Your task to perform on an android device: toggle improve location accuracy Image 0: 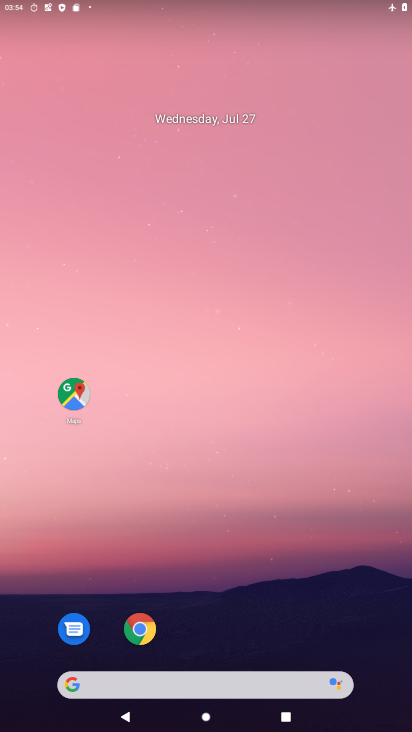
Step 0: drag from (242, 645) to (278, 18)
Your task to perform on an android device: toggle improve location accuracy Image 1: 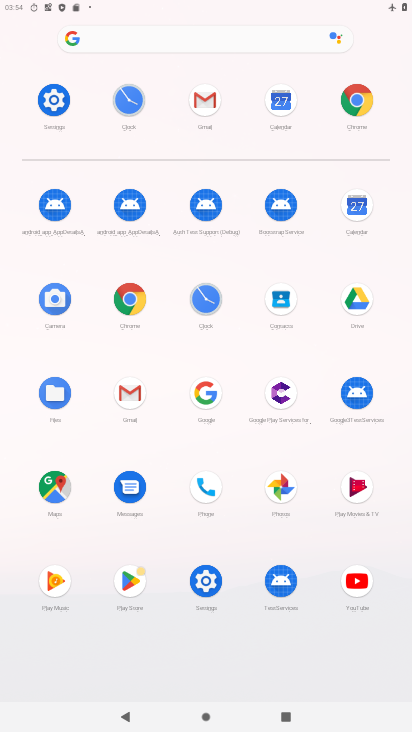
Step 1: click (50, 99)
Your task to perform on an android device: toggle improve location accuracy Image 2: 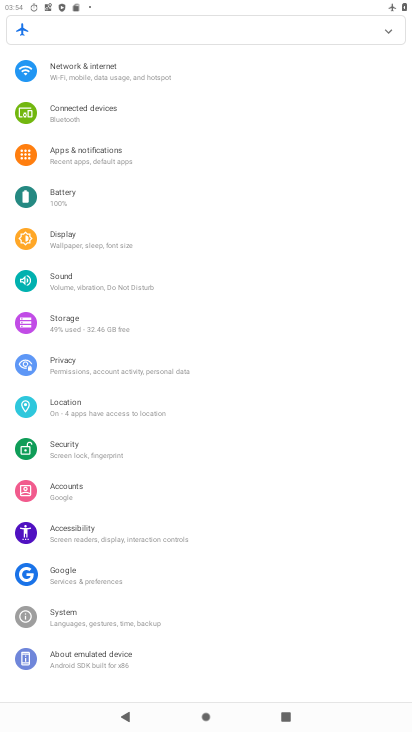
Step 2: click (106, 412)
Your task to perform on an android device: toggle improve location accuracy Image 3: 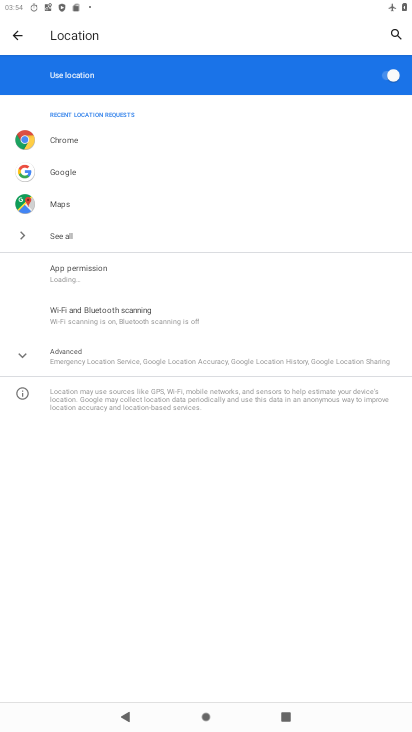
Step 3: click (65, 356)
Your task to perform on an android device: toggle improve location accuracy Image 4: 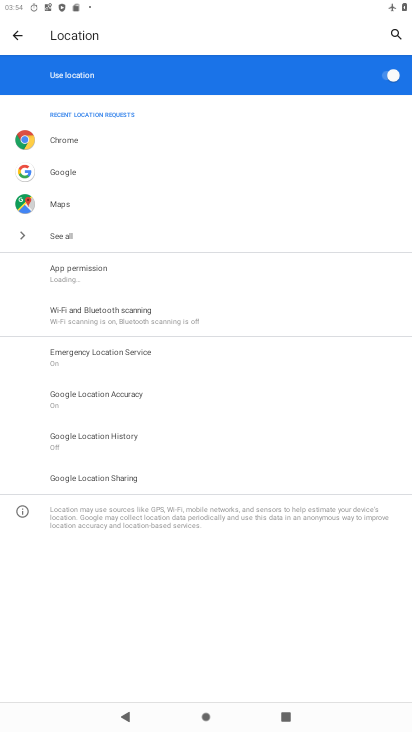
Step 4: click (113, 399)
Your task to perform on an android device: toggle improve location accuracy Image 5: 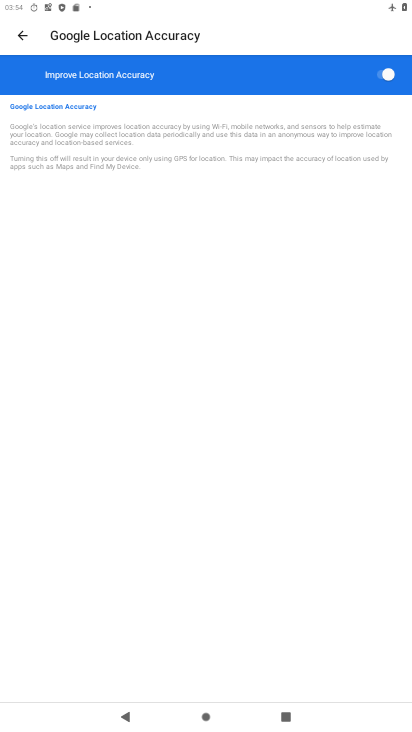
Step 5: click (365, 85)
Your task to perform on an android device: toggle improve location accuracy Image 6: 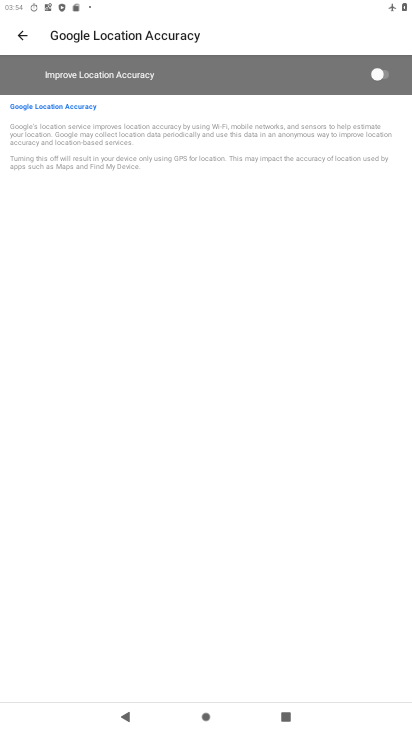
Step 6: task complete